Your task to perform on an android device: Open CNN.com Image 0: 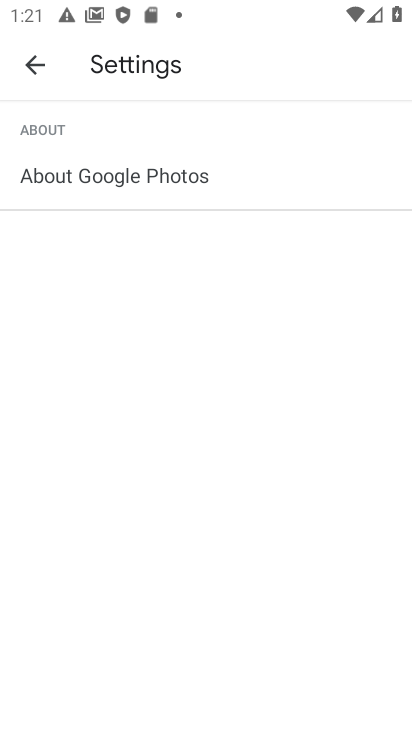
Step 0: press home button
Your task to perform on an android device: Open CNN.com Image 1: 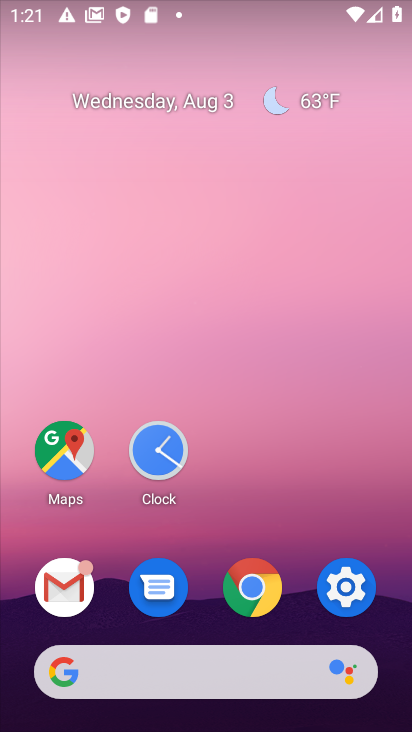
Step 1: click (254, 589)
Your task to perform on an android device: Open CNN.com Image 2: 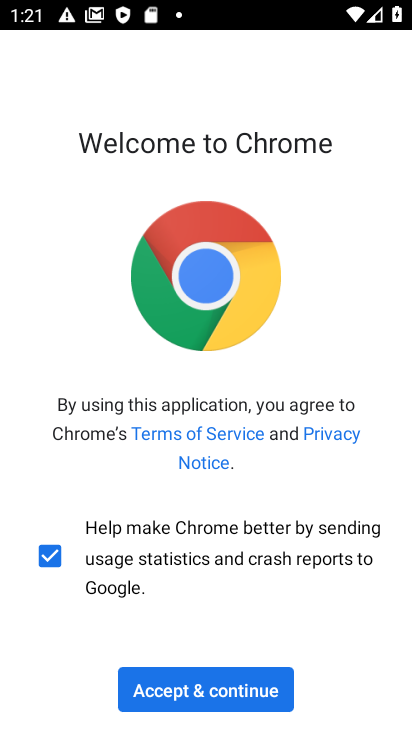
Step 2: click (219, 689)
Your task to perform on an android device: Open CNN.com Image 3: 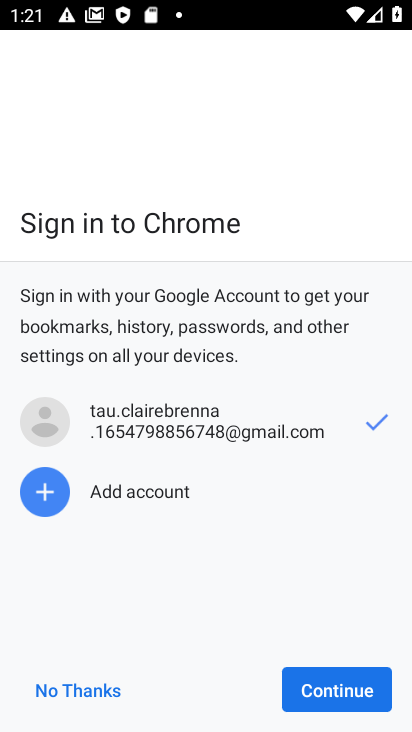
Step 3: click (349, 689)
Your task to perform on an android device: Open CNN.com Image 4: 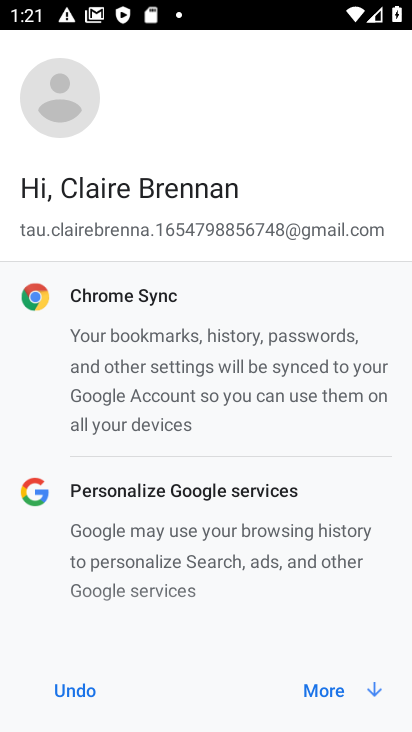
Step 4: click (371, 695)
Your task to perform on an android device: Open CNN.com Image 5: 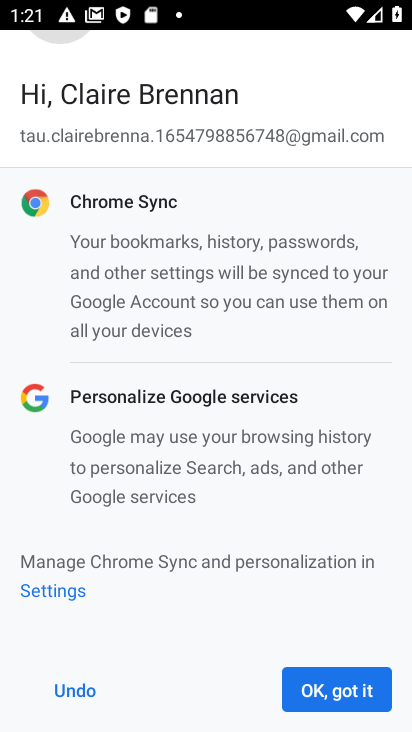
Step 5: click (337, 685)
Your task to perform on an android device: Open CNN.com Image 6: 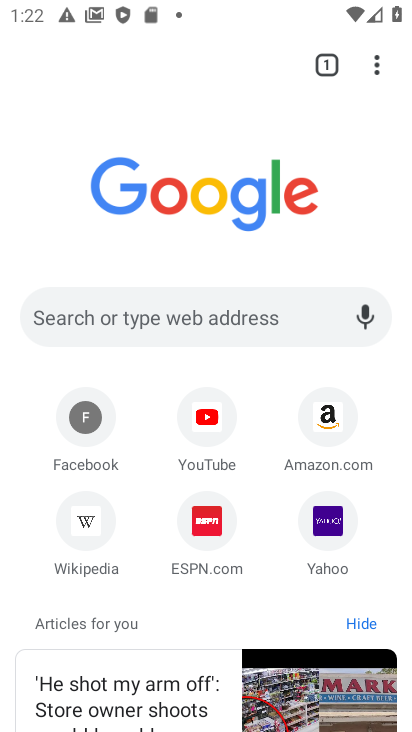
Step 6: click (149, 316)
Your task to perform on an android device: Open CNN.com Image 7: 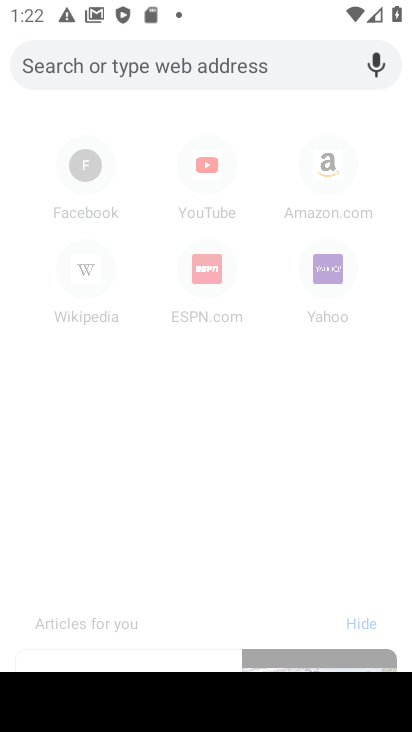
Step 7: type "cnn.com"
Your task to perform on an android device: Open CNN.com Image 8: 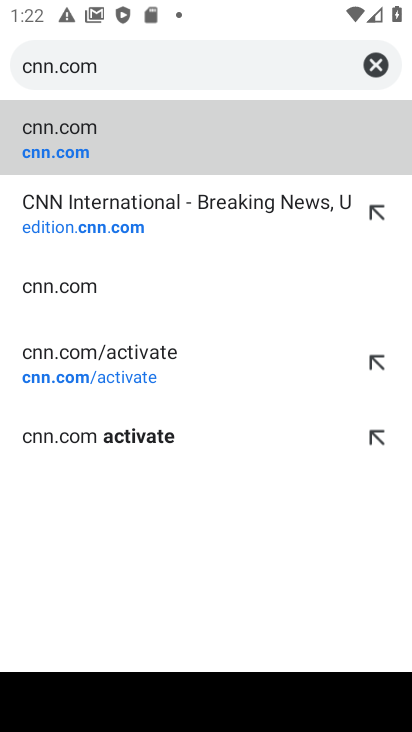
Step 8: click (84, 138)
Your task to perform on an android device: Open CNN.com Image 9: 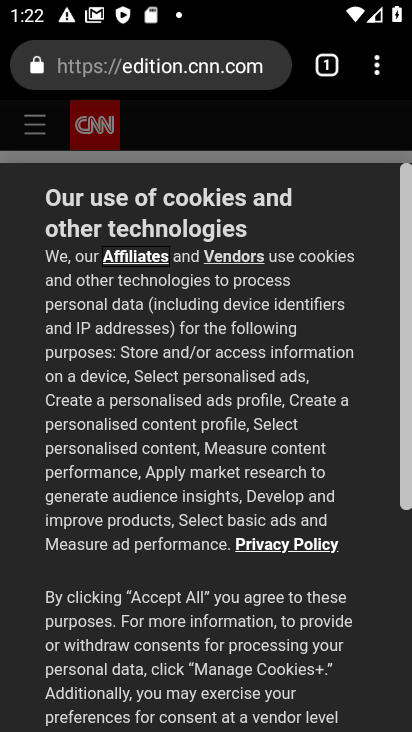
Step 9: drag from (405, 499) to (334, 718)
Your task to perform on an android device: Open CNN.com Image 10: 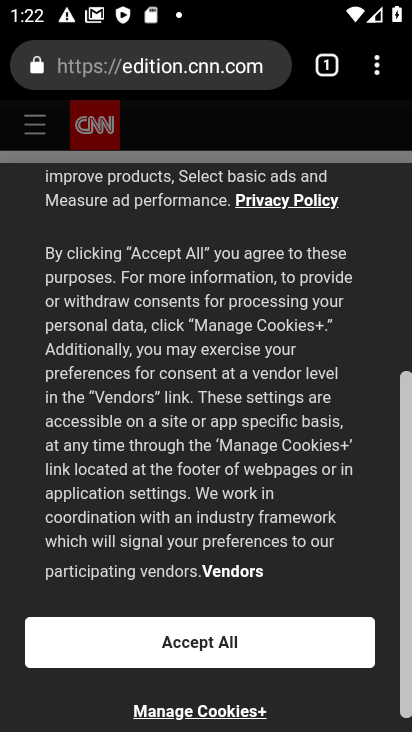
Step 10: click (205, 618)
Your task to perform on an android device: Open CNN.com Image 11: 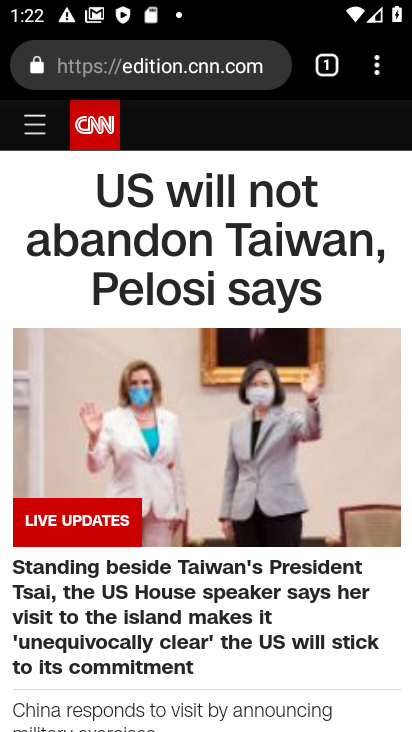
Step 11: task complete